Your task to perform on an android device: Open Maps and search for coffee Image 0: 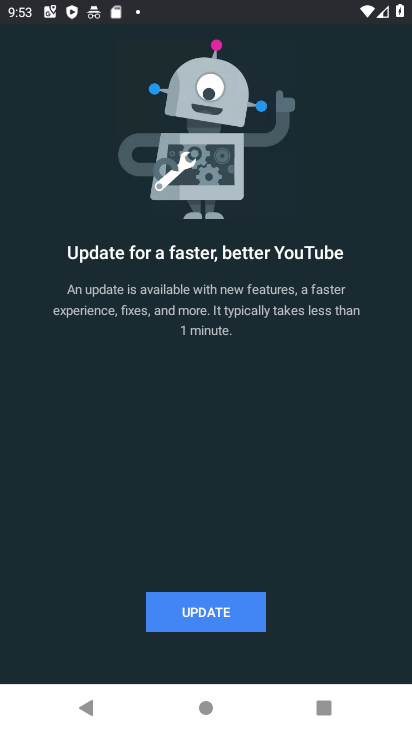
Step 0: press home button
Your task to perform on an android device: Open Maps and search for coffee Image 1: 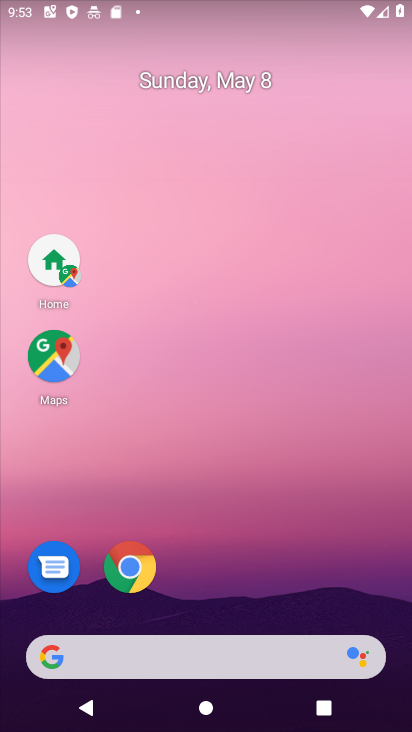
Step 1: drag from (307, 601) to (26, 46)
Your task to perform on an android device: Open Maps and search for coffee Image 2: 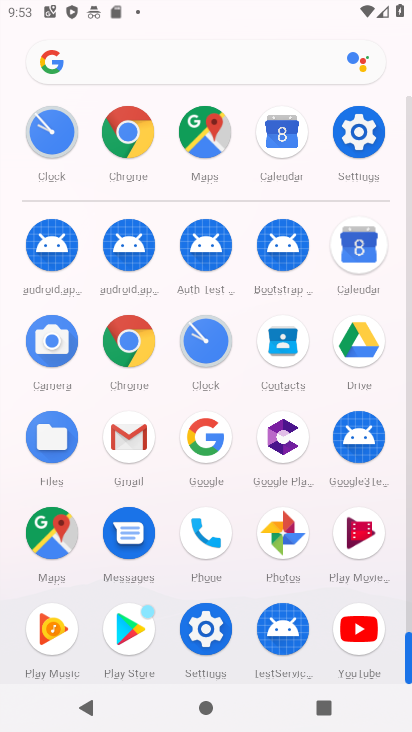
Step 2: click (57, 538)
Your task to perform on an android device: Open Maps and search for coffee Image 3: 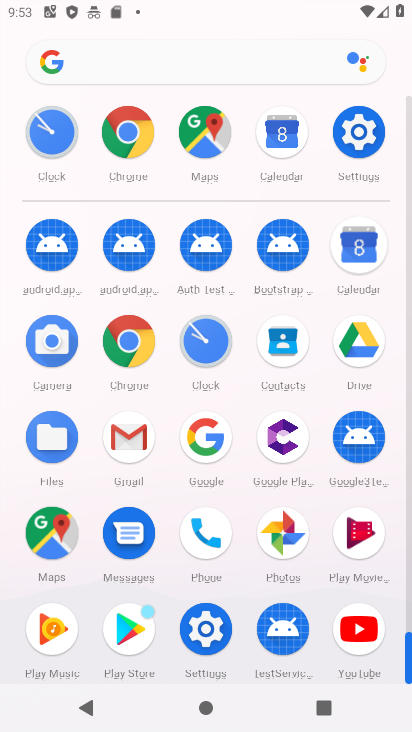
Step 3: click (57, 538)
Your task to perform on an android device: Open Maps and search for coffee Image 4: 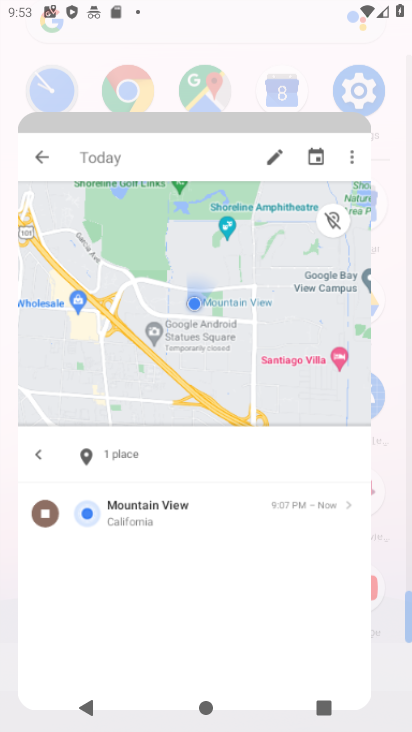
Step 4: click (58, 542)
Your task to perform on an android device: Open Maps and search for coffee Image 5: 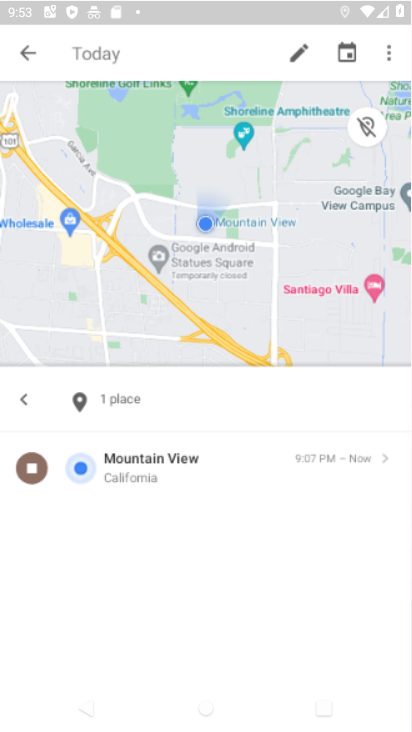
Step 5: click (57, 544)
Your task to perform on an android device: Open Maps and search for coffee Image 6: 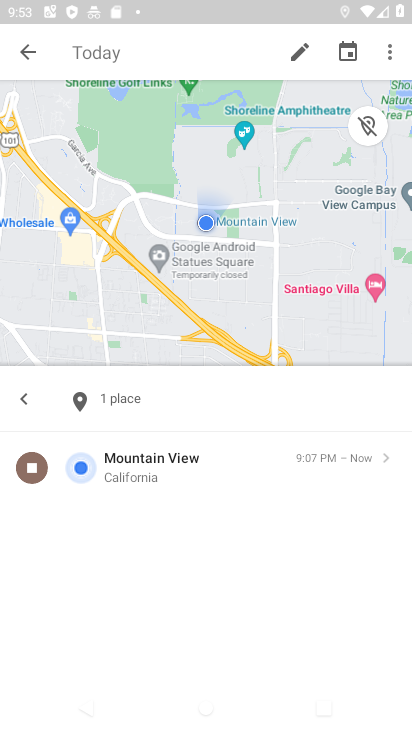
Step 6: click (72, 53)
Your task to perform on an android device: Open Maps and search for coffee Image 7: 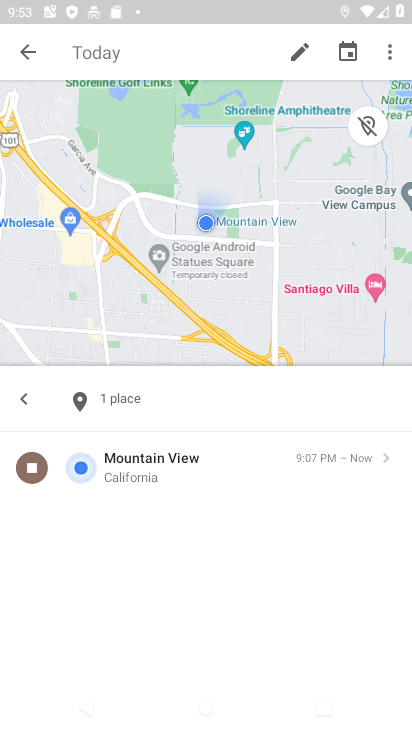
Step 7: click (78, 53)
Your task to perform on an android device: Open Maps and search for coffee Image 8: 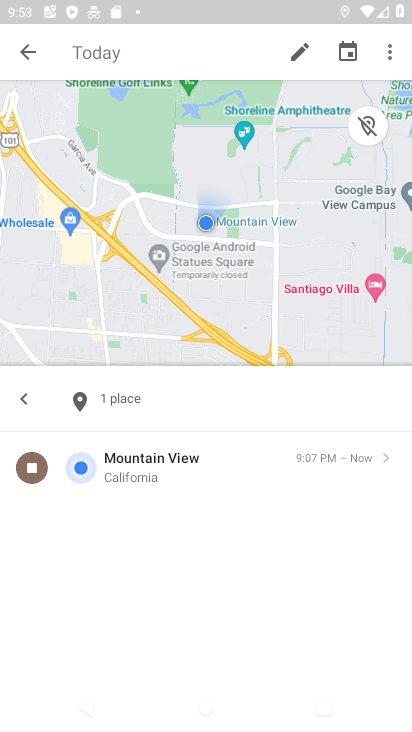
Step 8: click (78, 53)
Your task to perform on an android device: Open Maps and search for coffee Image 9: 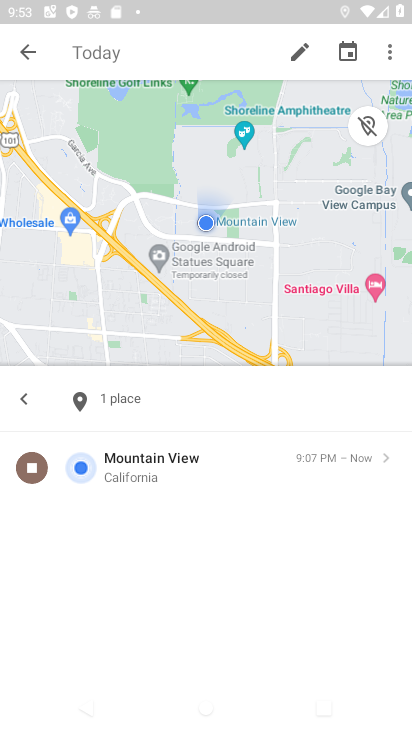
Step 9: drag from (51, 52) to (144, 52)
Your task to perform on an android device: Open Maps and search for coffee Image 10: 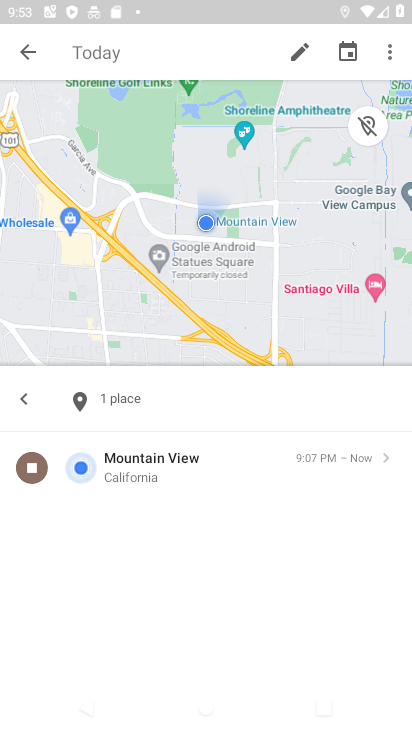
Step 10: click (51, 52)
Your task to perform on an android device: Open Maps and search for coffee Image 11: 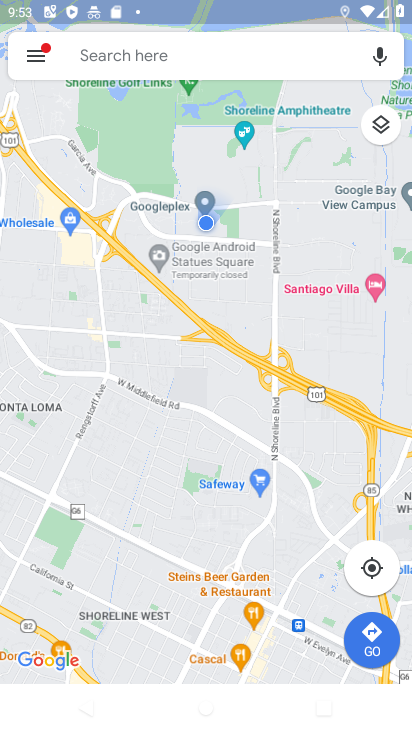
Step 11: click (89, 48)
Your task to perform on an android device: Open Maps and search for coffee Image 12: 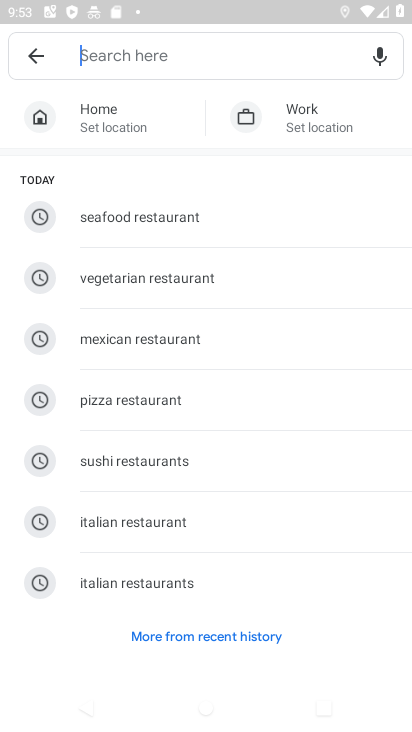
Step 12: click (84, 56)
Your task to perform on an android device: Open Maps and search for coffee Image 13: 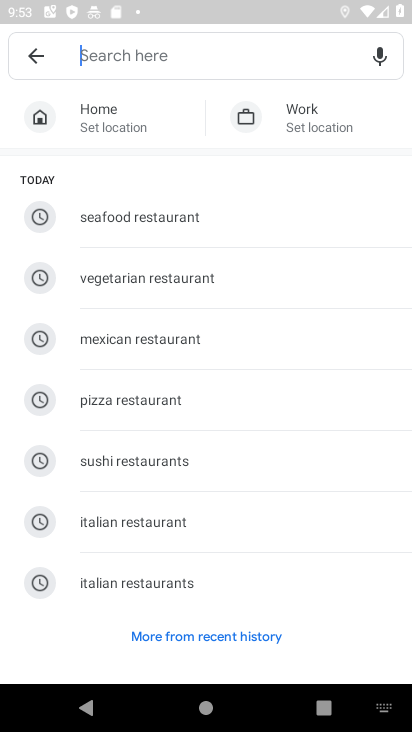
Step 13: type "coffee"
Your task to perform on an android device: Open Maps and search for coffee Image 14: 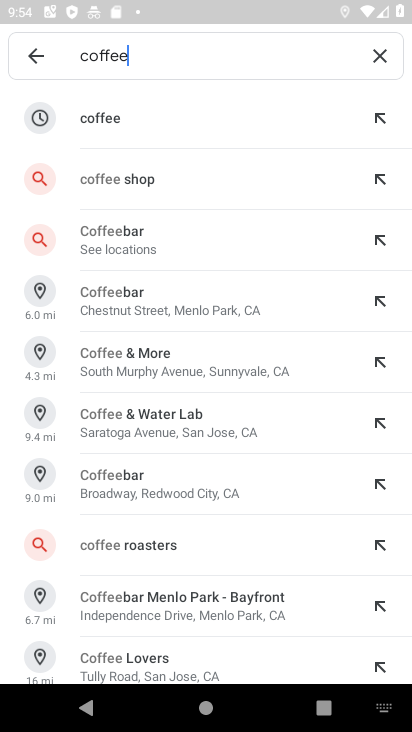
Step 14: click (92, 119)
Your task to perform on an android device: Open Maps and search for coffee Image 15: 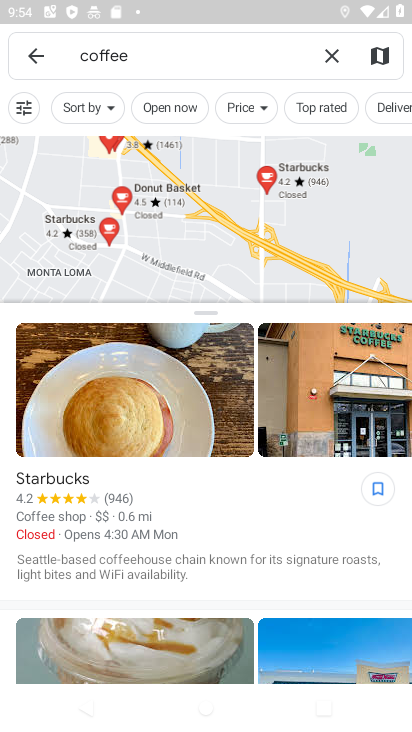
Step 15: task complete